Your task to perform on an android device: What's the weather going to be this weekend? Image 0: 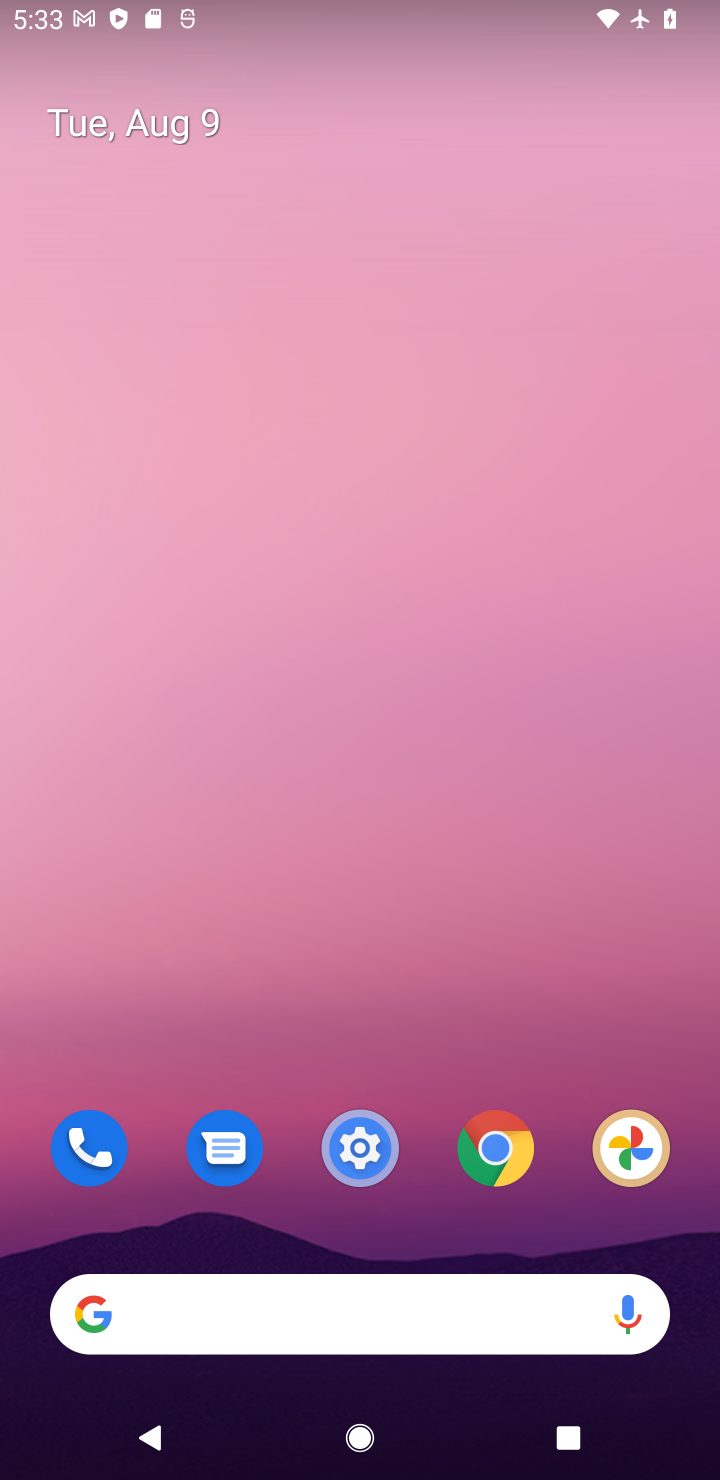
Step 0: click (321, 1314)
Your task to perform on an android device: What's the weather going to be this weekend? Image 1: 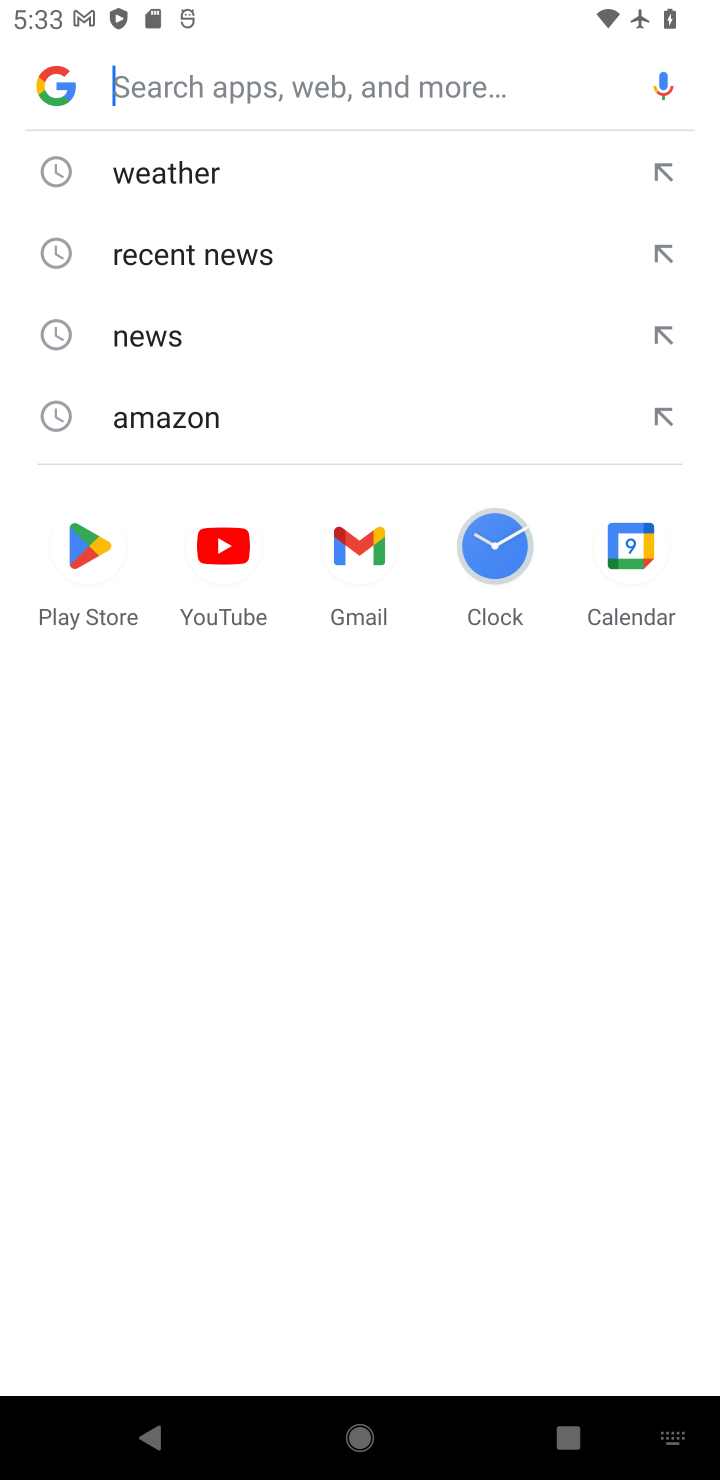
Step 1: type "weather"
Your task to perform on an android device: What's the weather going to be this weekend? Image 2: 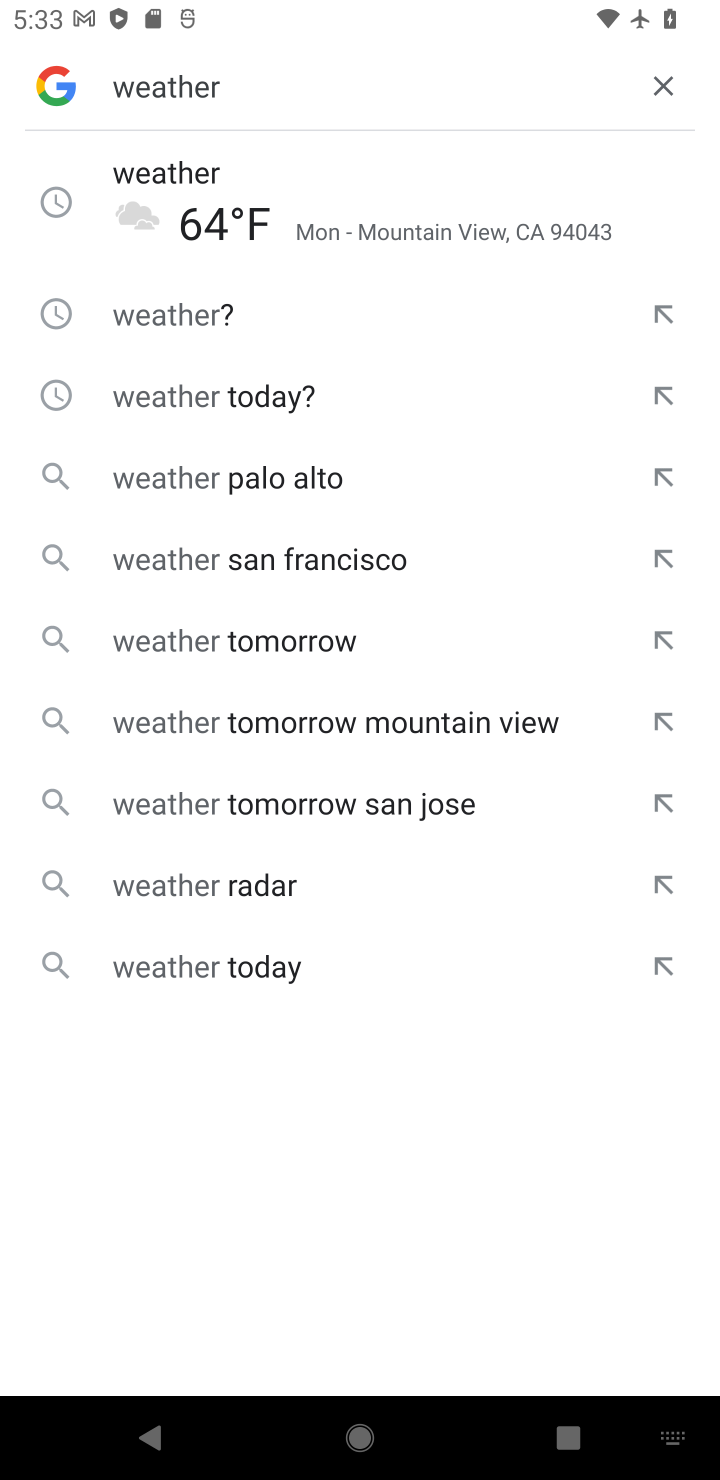
Step 2: click (263, 200)
Your task to perform on an android device: What's the weather going to be this weekend? Image 3: 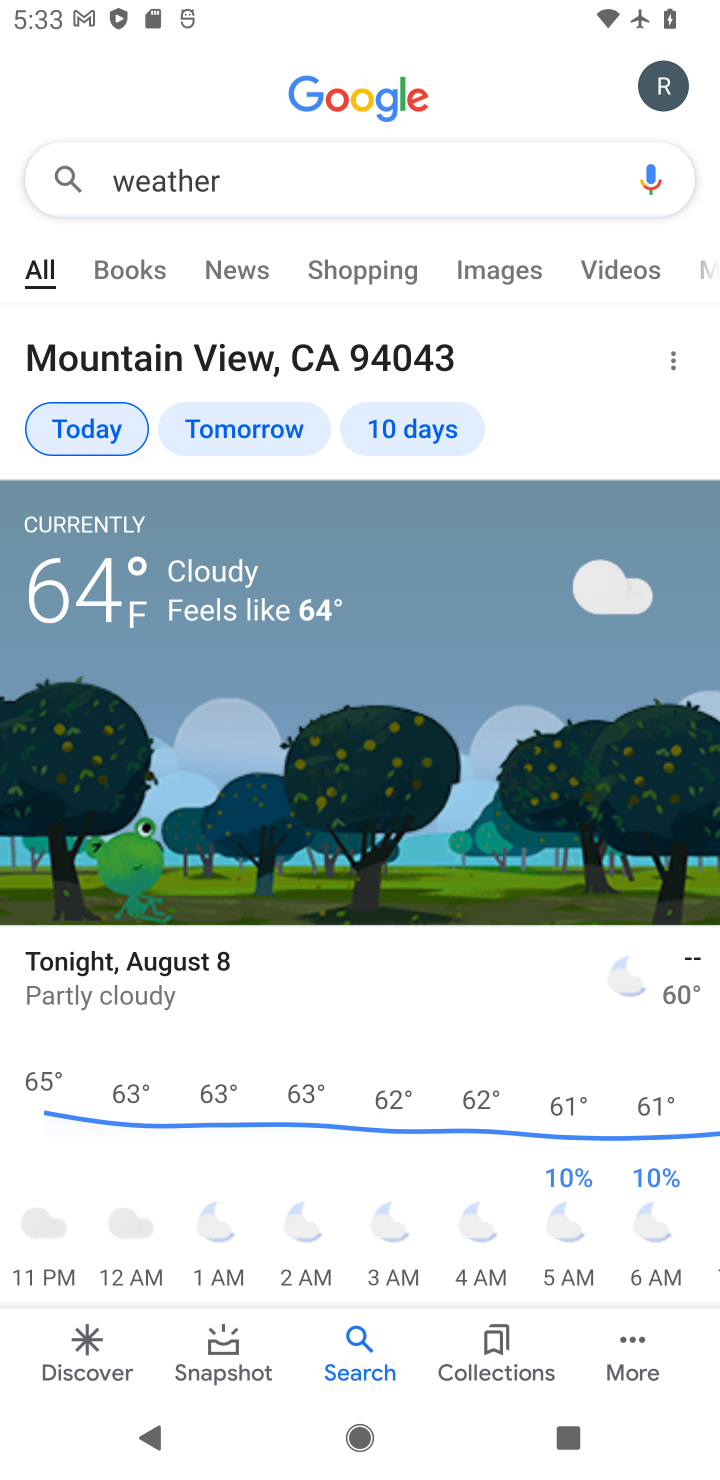
Step 3: click (407, 426)
Your task to perform on an android device: What's the weather going to be this weekend? Image 4: 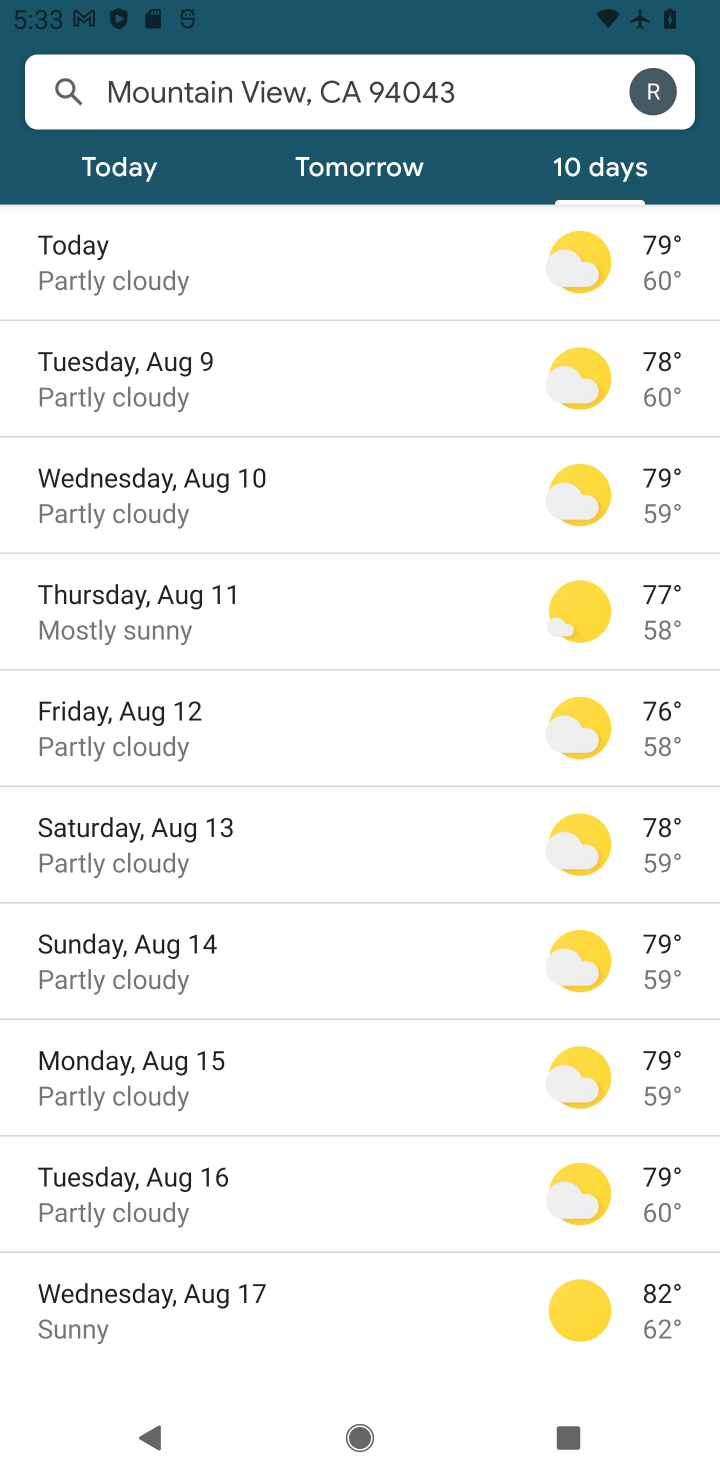
Step 4: task complete